Your task to perform on an android device: Open Google Chrome Image 0: 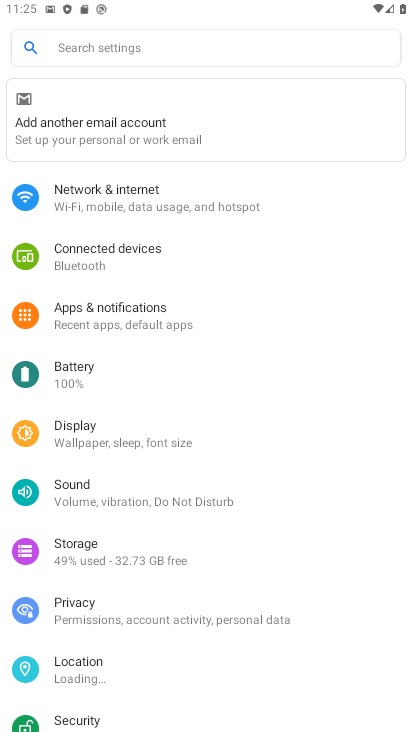
Step 0: press home button
Your task to perform on an android device: Open Google Chrome Image 1: 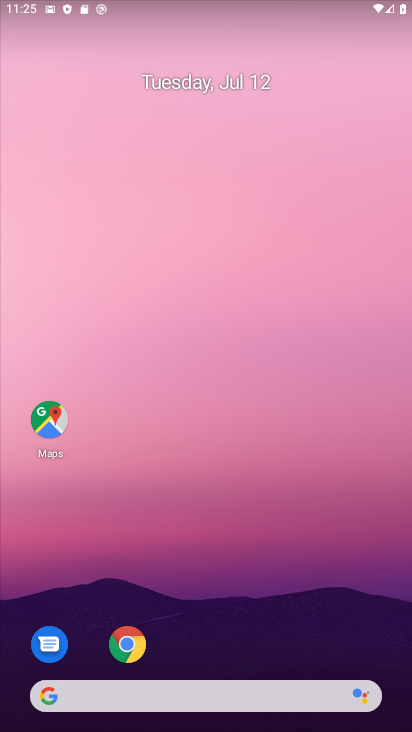
Step 1: click (139, 652)
Your task to perform on an android device: Open Google Chrome Image 2: 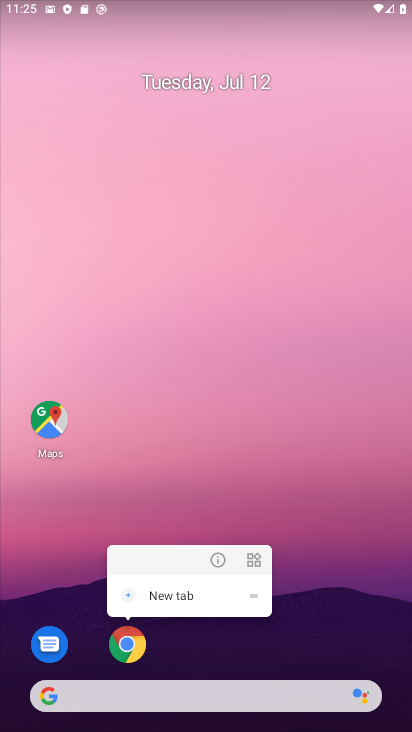
Step 2: click (123, 649)
Your task to perform on an android device: Open Google Chrome Image 3: 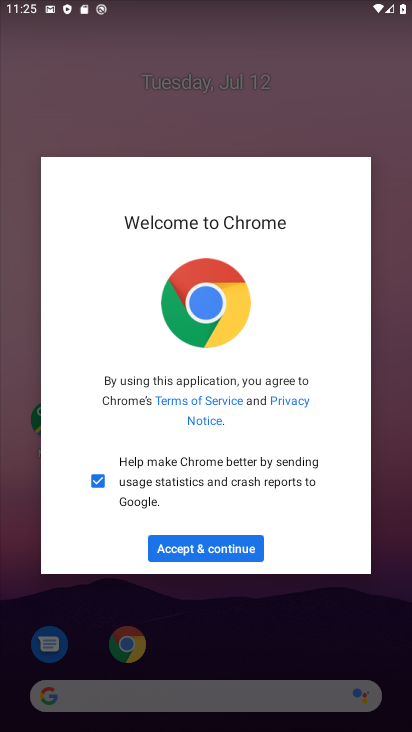
Step 3: click (211, 549)
Your task to perform on an android device: Open Google Chrome Image 4: 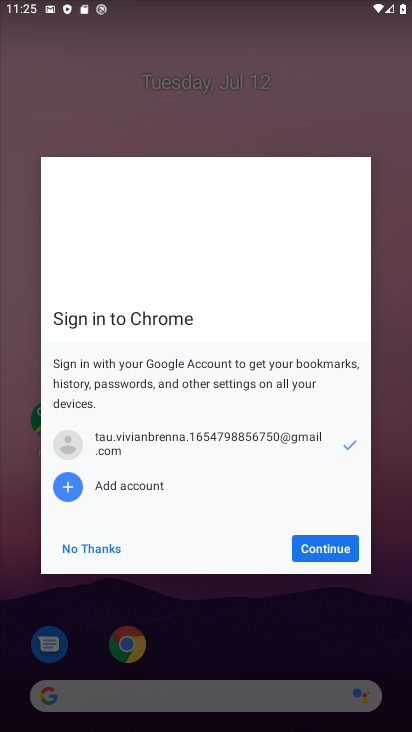
Step 4: click (330, 554)
Your task to perform on an android device: Open Google Chrome Image 5: 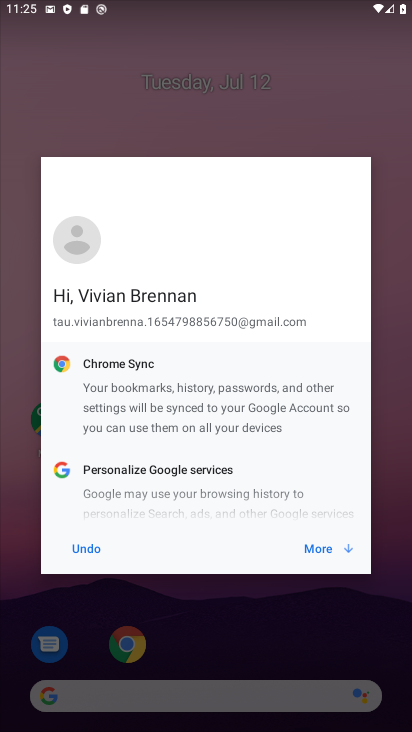
Step 5: click (330, 554)
Your task to perform on an android device: Open Google Chrome Image 6: 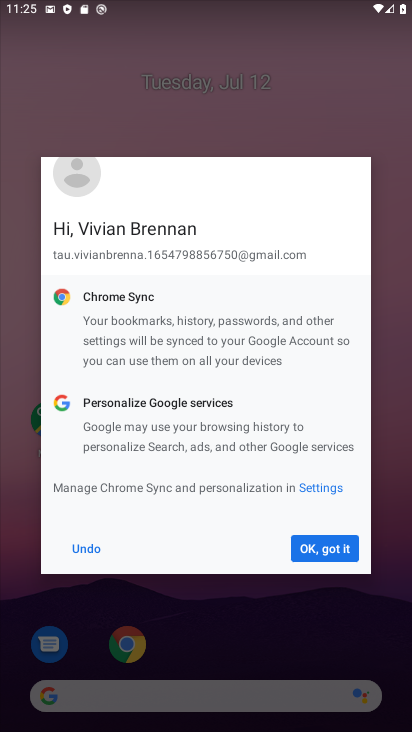
Step 6: click (331, 554)
Your task to perform on an android device: Open Google Chrome Image 7: 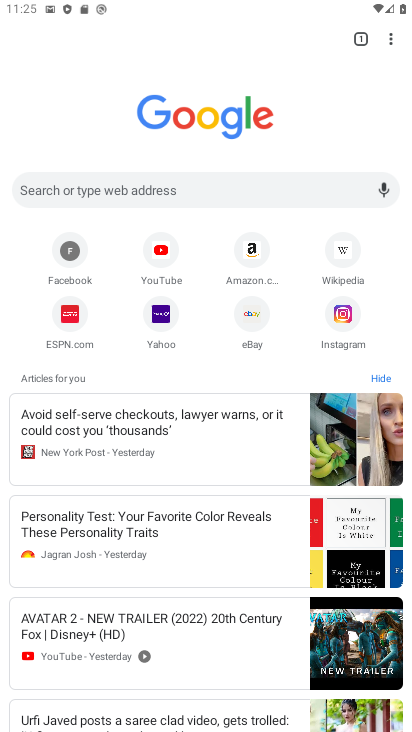
Step 7: task complete